Your task to perform on an android device: toggle pop-ups in chrome Image 0: 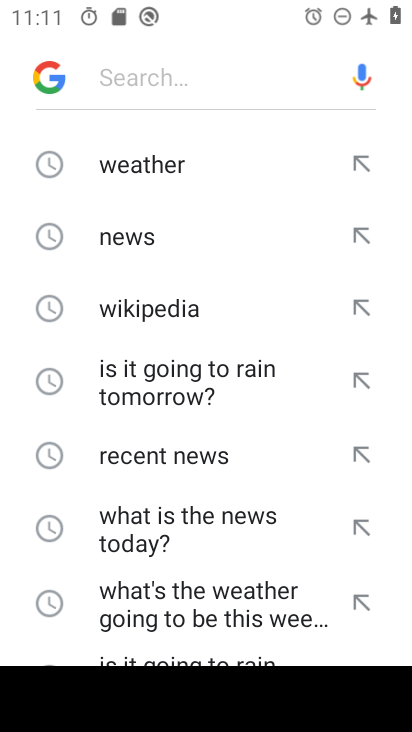
Step 0: press home button
Your task to perform on an android device: toggle pop-ups in chrome Image 1: 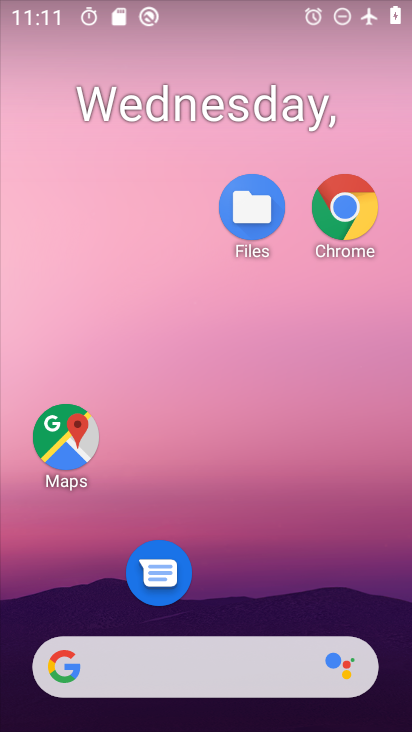
Step 1: drag from (224, 619) to (259, 115)
Your task to perform on an android device: toggle pop-ups in chrome Image 2: 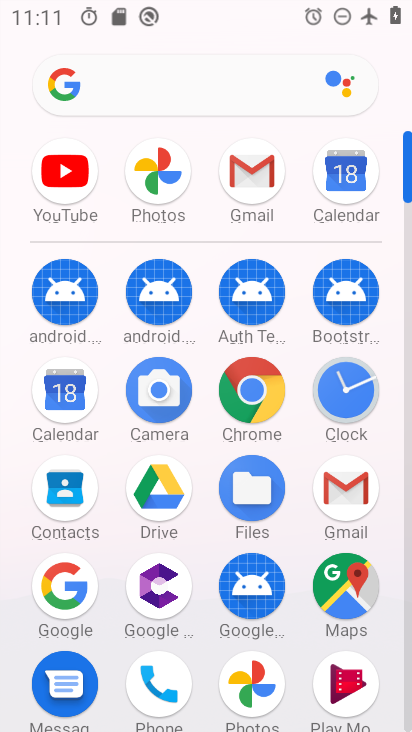
Step 2: click (265, 401)
Your task to perform on an android device: toggle pop-ups in chrome Image 3: 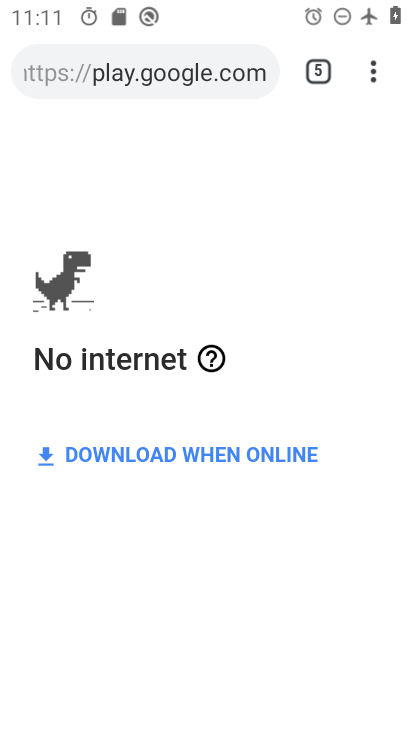
Step 3: click (370, 73)
Your task to perform on an android device: toggle pop-ups in chrome Image 4: 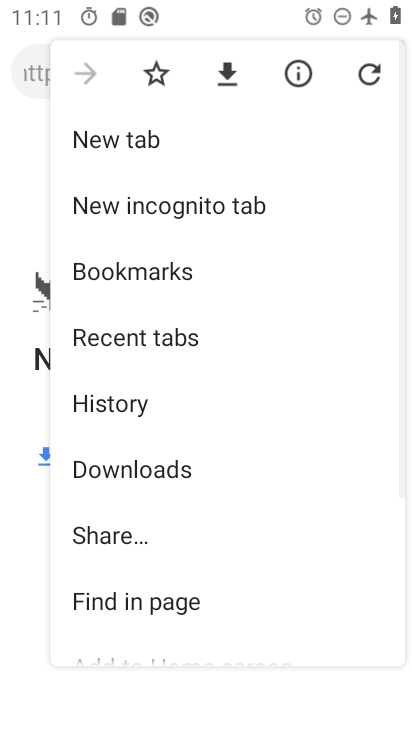
Step 4: drag from (150, 501) to (150, 146)
Your task to perform on an android device: toggle pop-ups in chrome Image 5: 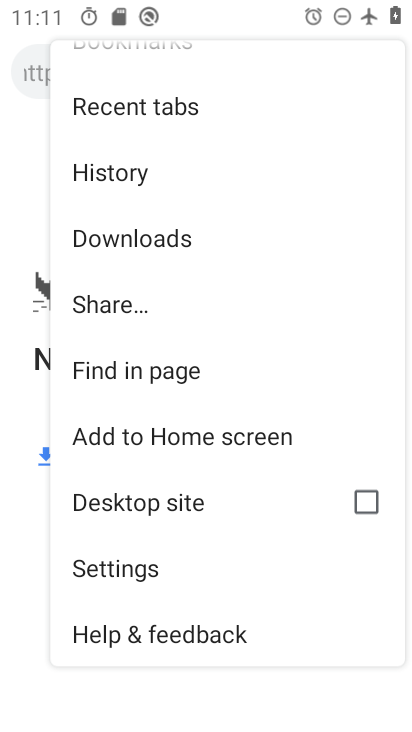
Step 5: click (158, 562)
Your task to perform on an android device: toggle pop-ups in chrome Image 6: 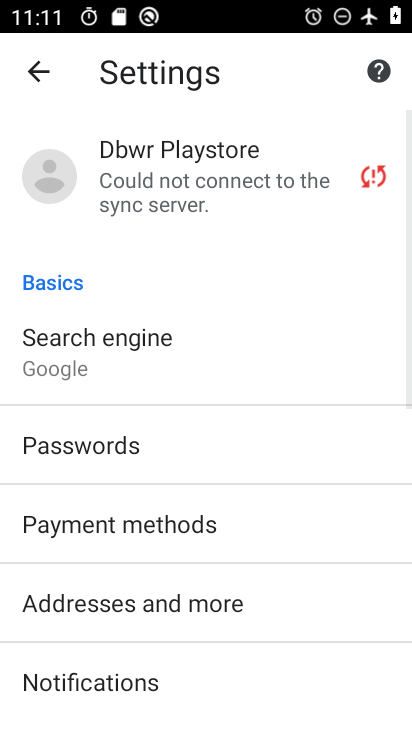
Step 6: drag from (174, 613) to (212, 181)
Your task to perform on an android device: toggle pop-ups in chrome Image 7: 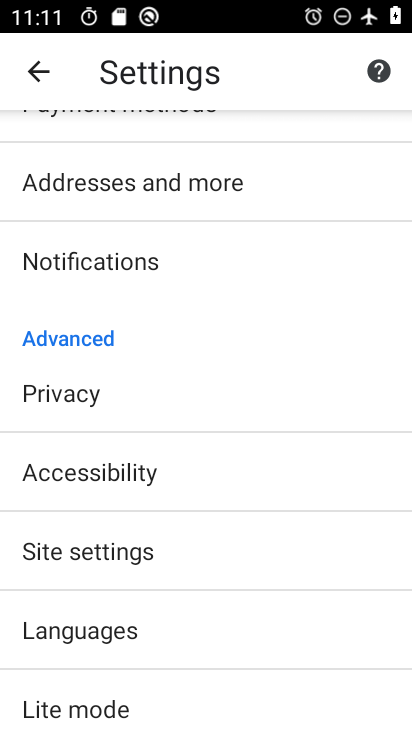
Step 7: click (176, 547)
Your task to perform on an android device: toggle pop-ups in chrome Image 8: 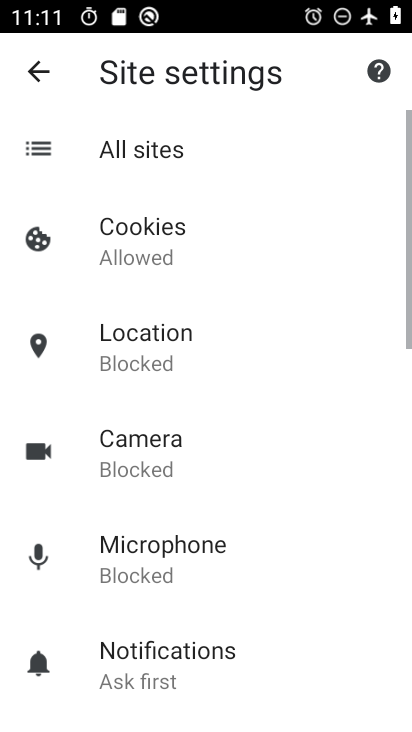
Step 8: drag from (176, 547) to (226, 85)
Your task to perform on an android device: toggle pop-ups in chrome Image 9: 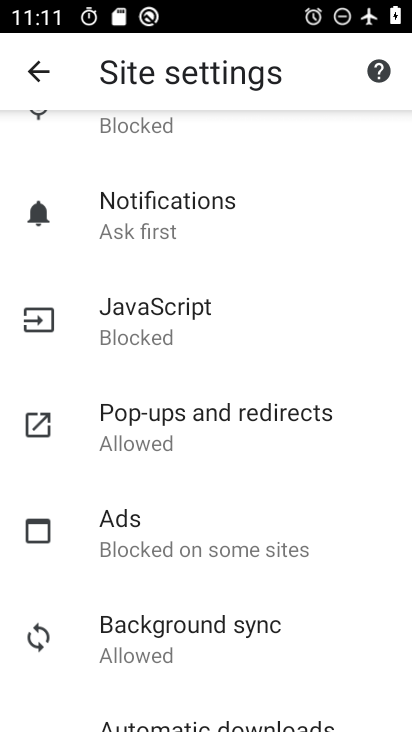
Step 9: click (232, 411)
Your task to perform on an android device: toggle pop-ups in chrome Image 10: 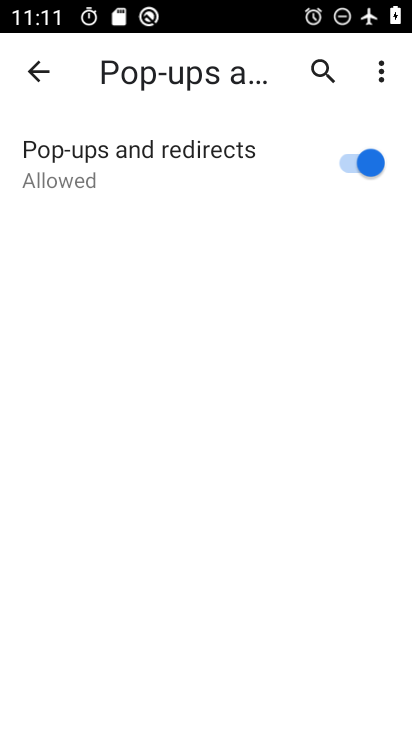
Step 10: click (353, 163)
Your task to perform on an android device: toggle pop-ups in chrome Image 11: 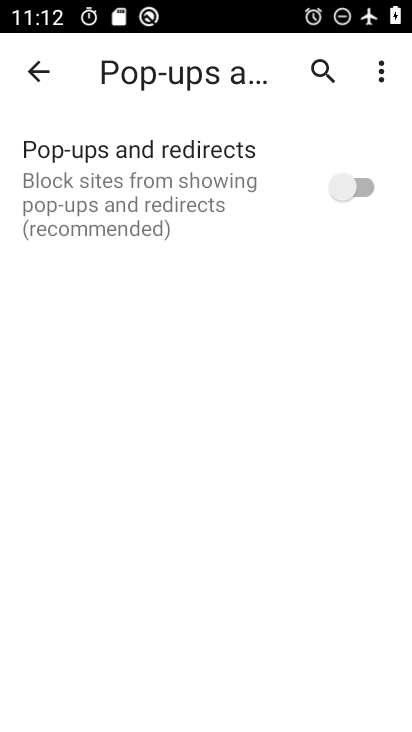
Step 11: task complete